Your task to perform on an android device: Go to ESPN.com Image 0: 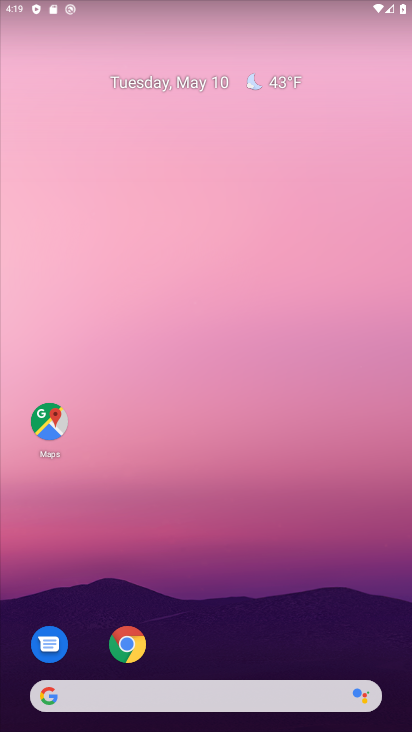
Step 0: click (123, 646)
Your task to perform on an android device: Go to ESPN.com Image 1: 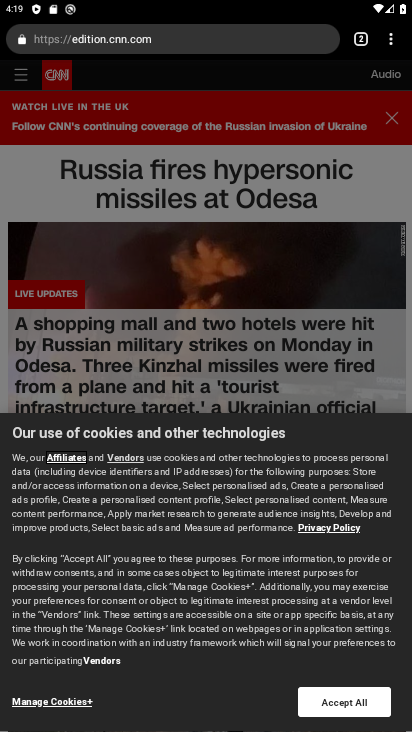
Step 1: click (360, 39)
Your task to perform on an android device: Go to ESPN.com Image 2: 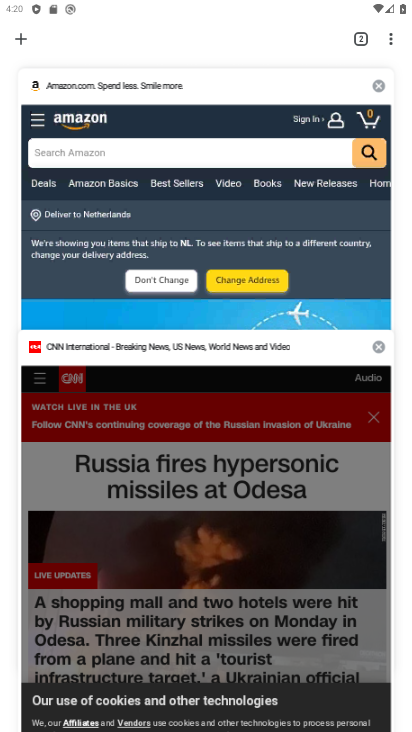
Step 2: click (382, 78)
Your task to perform on an android device: Go to ESPN.com Image 3: 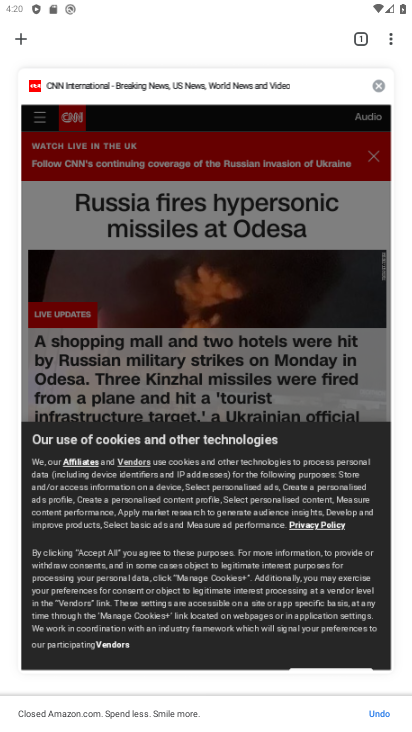
Step 3: click (382, 83)
Your task to perform on an android device: Go to ESPN.com Image 4: 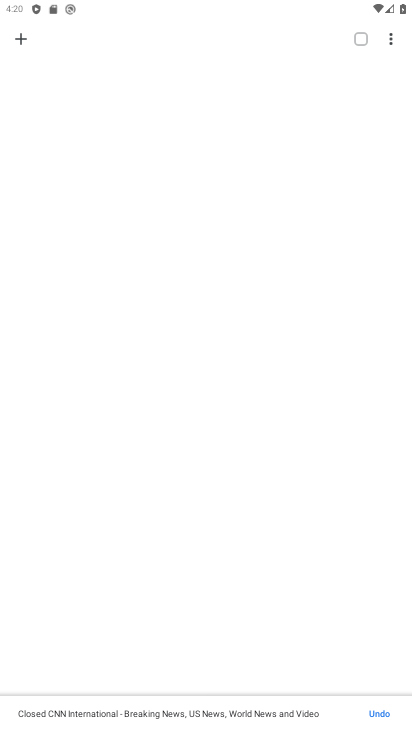
Step 4: click (23, 34)
Your task to perform on an android device: Go to ESPN.com Image 5: 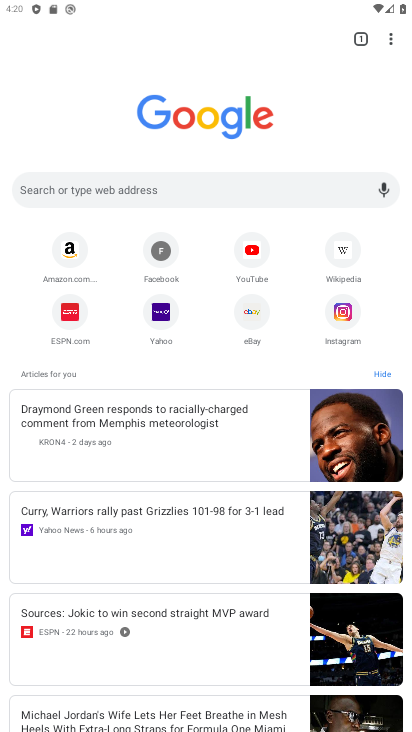
Step 5: click (66, 321)
Your task to perform on an android device: Go to ESPN.com Image 6: 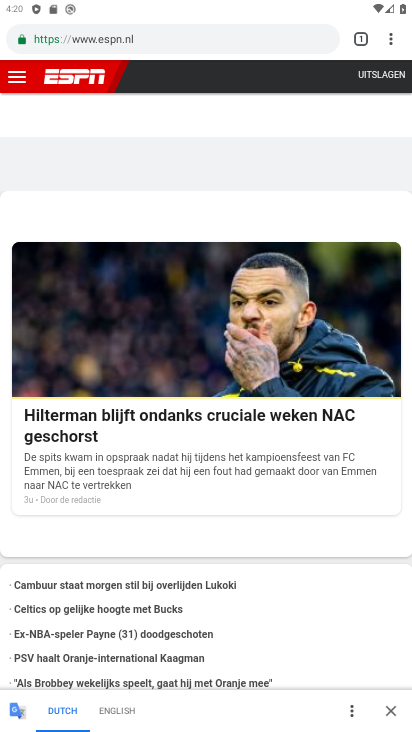
Step 6: task complete